Your task to perform on an android device: turn on notifications settings in the gmail app Image 0: 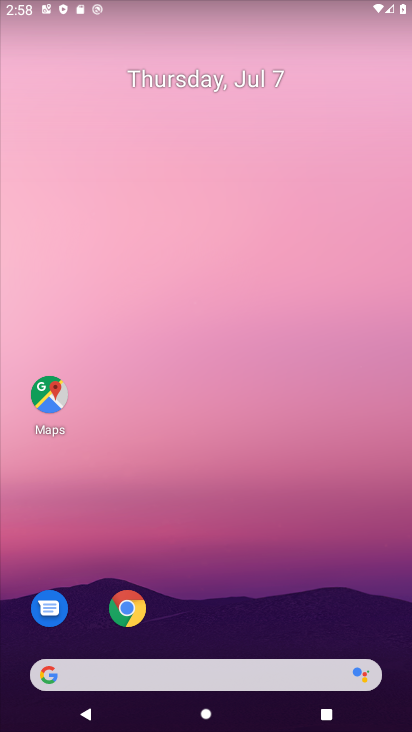
Step 0: drag from (347, 588) to (303, 78)
Your task to perform on an android device: turn on notifications settings in the gmail app Image 1: 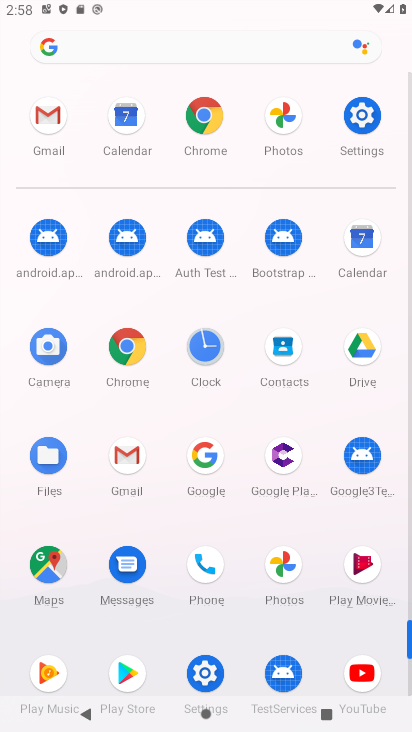
Step 1: click (126, 460)
Your task to perform on an android device: turn on notifications settings in the gmail app Image 2: 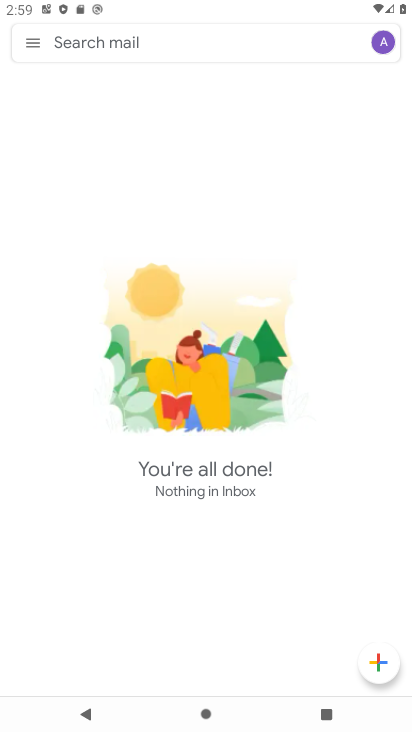
Step 2: click (37, 45)
Your task to perform on an android device: turn on notifications settings in the gmail app Image 3: 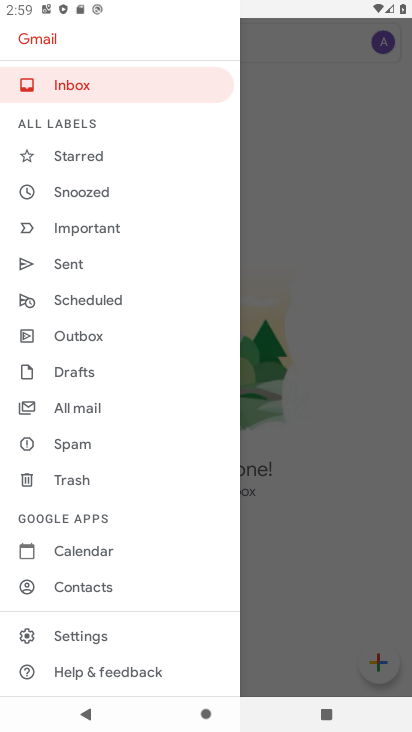
Step 3: click (71, 626)
Your task to perform on an android device: turn on notifications settings in the gmail app Image 4: 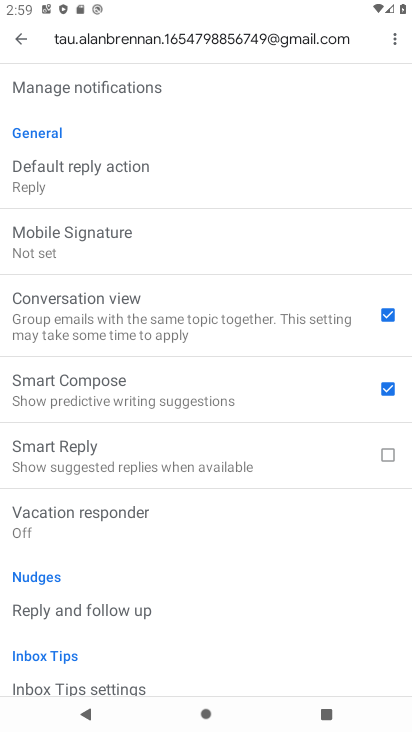
Step 4: drag from (292, 155) to (255, 513)
Your task to perform on an android device: turn on notifications settings in the gmail app Image 5: 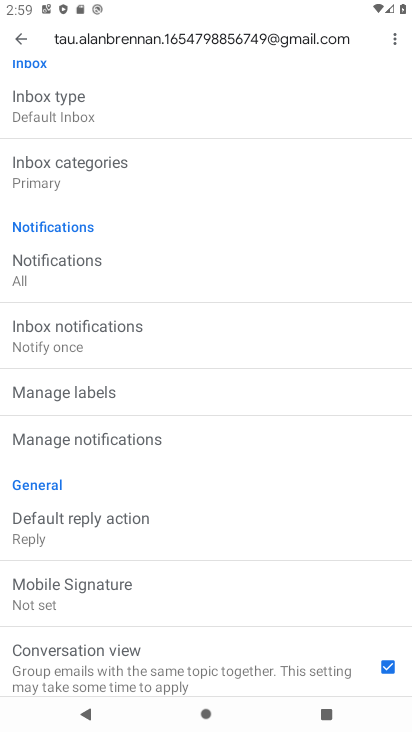
Step 5: drag from (242, 246) to (220, 457)
Your task to perform on an android device: turn on notifications settings in the gmail app Image 6: 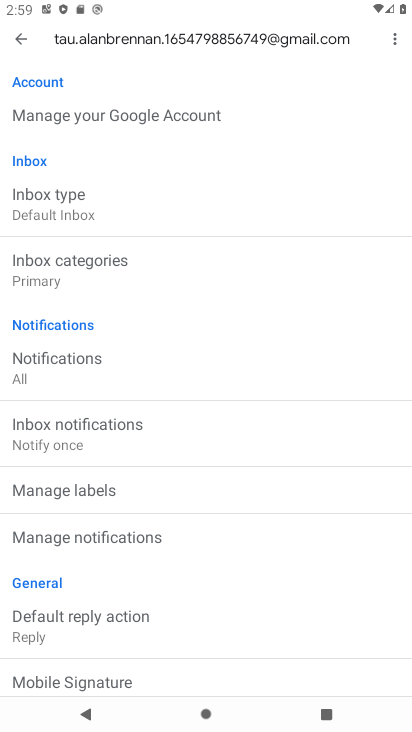
Step 6: click (100, 535)
Your task to perform on an android device: turn on notifications settings in the gmail app Image 7: 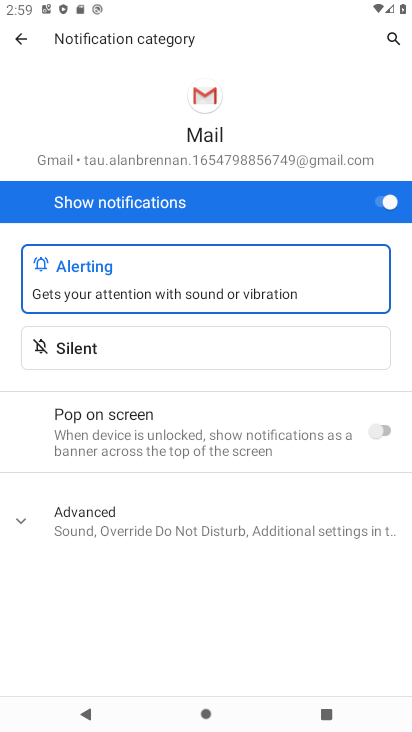
Step 7: task complete